Your task to perform on an android device: open app "YouTube Kids" Image 0: 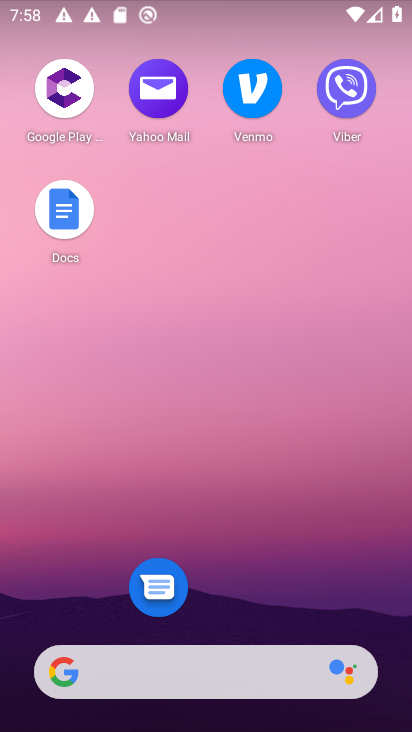
Step 0: drag from (260, 433) to (260, 164)
Your task to perform on an android device: open app "YouTube Kids" Image 1: 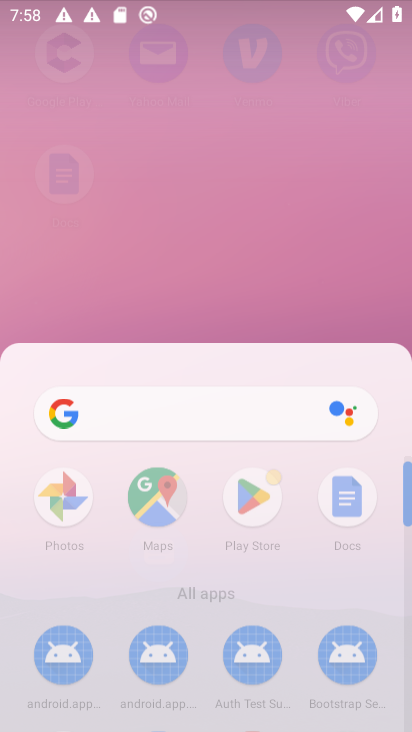
Step 1: drag from (265, 617) to (166, 94)
Your task to perform on an android device: open app "YouTube Kids" Image 2: 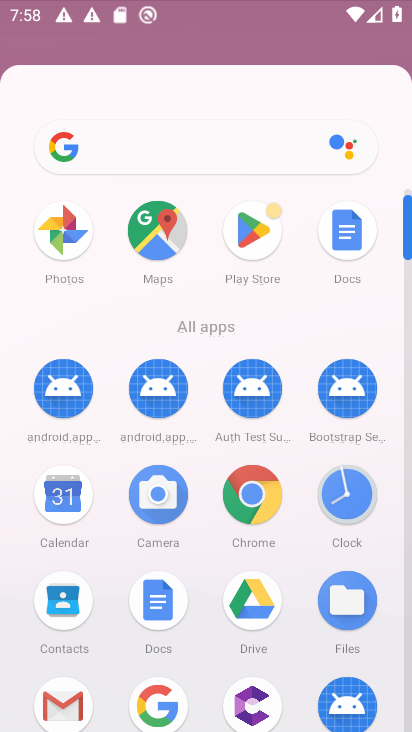
Step 2: drag from (230, 523) to (227, 156)
Your task to perform on an android device: open app "YouTube Kids" Image 3: 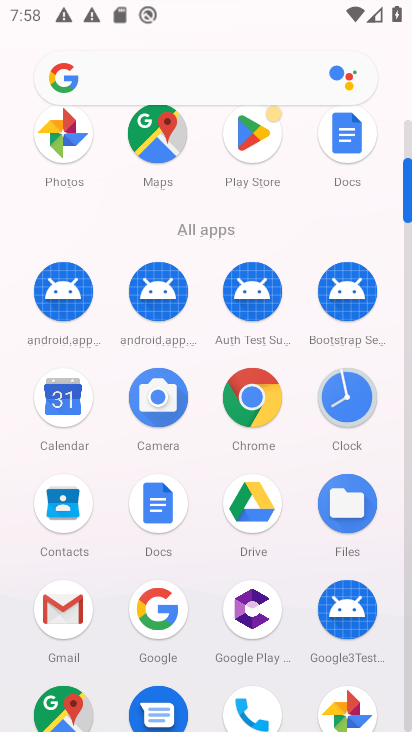
Step 3: click (254, 136)
Your task to perform on an android device: open app "YouTube Kids" Image 4: 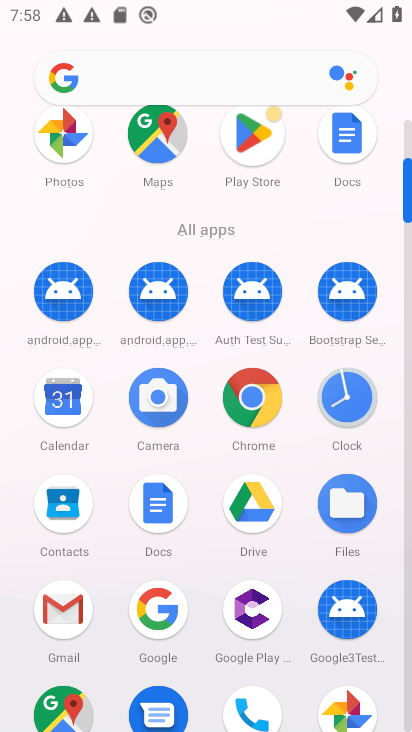
Step 4: click (252, 137)
Your task to perform on an android device: open app "YouTube Kids" Image 5: 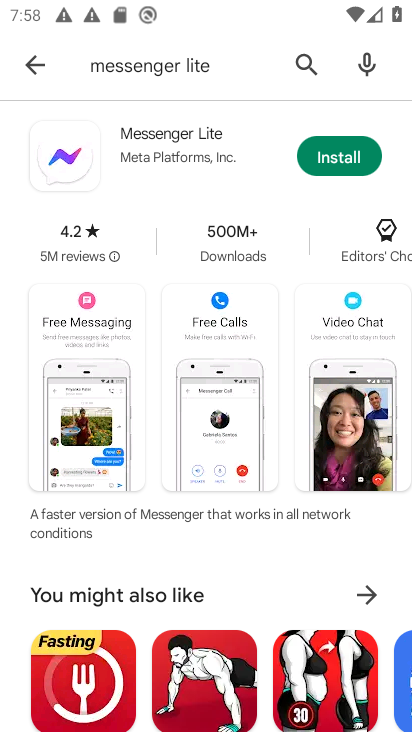
Step 5: click (29, 59)
Your task to perform on an android device: open app "YouTube Kids" Image 6: 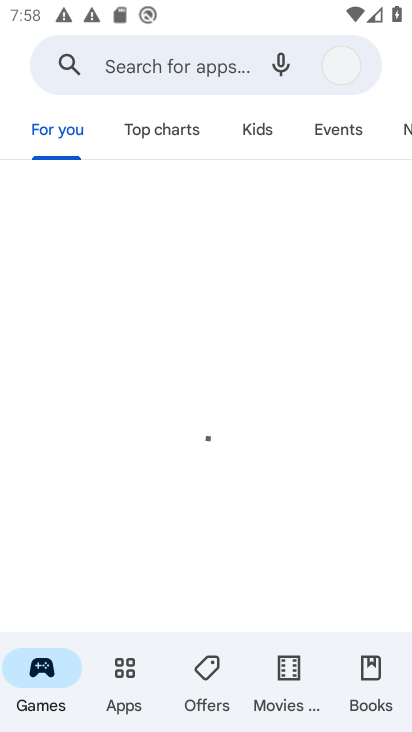
Step 6: click (41, 67)
Your task to perform on an android device: open app "YouTube Kids" Image 7: 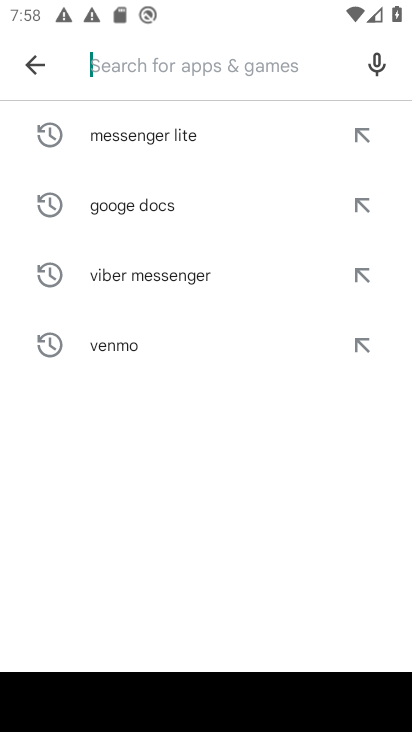
Step 7: click (148, 65)
Your task to perform on an android device: open app "YouTube Kids" Image 8: 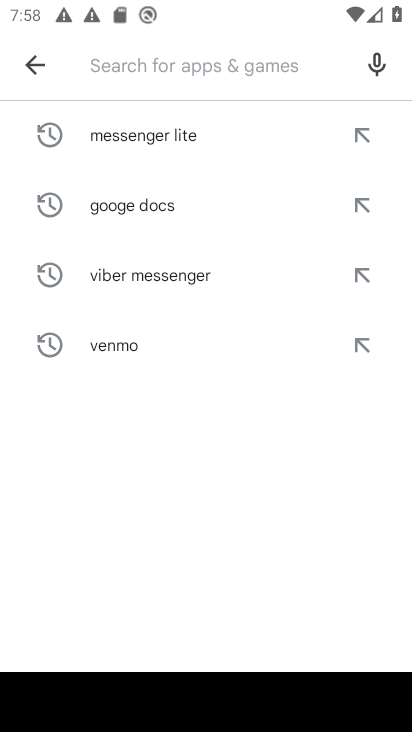
Step 8: type "youtube kids"
Your task to perform on an android device: open app "YouTube Kids" Image 9: 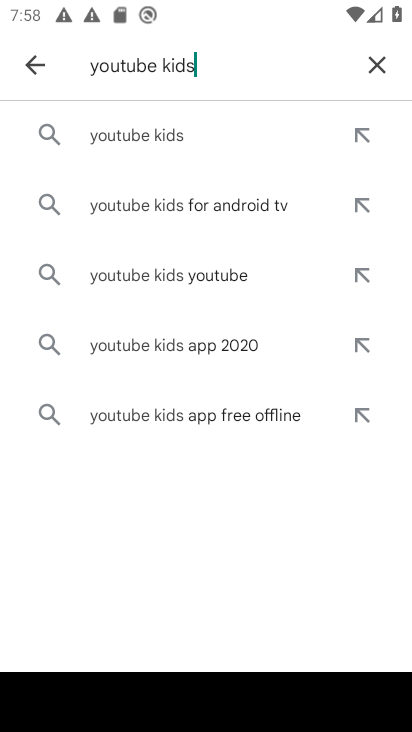
Step 9: click (118, 131)
Your task to perform on an android device: open app "YouTube Kids" Image 10: 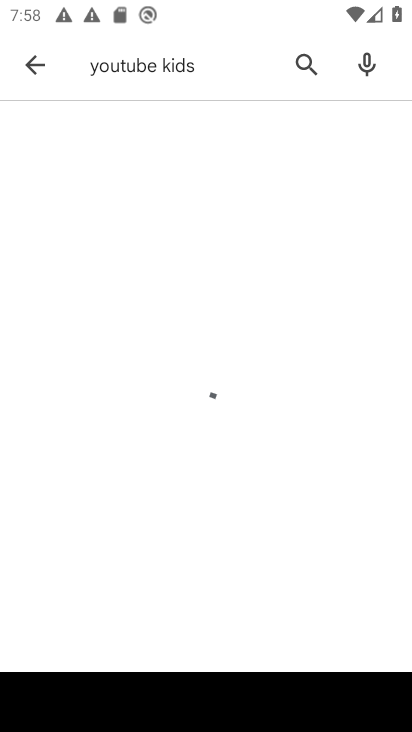
Step 10: click (124, 140)
Your task to perform on an android device: open app "YouTube Kids" Image 11: 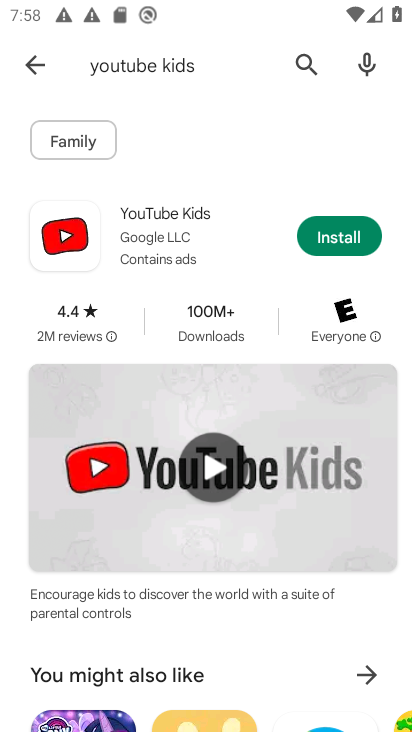
Step 11: click (343, 248)
Your task to perform on an android device: open app "YouTube Kids" Image 12: 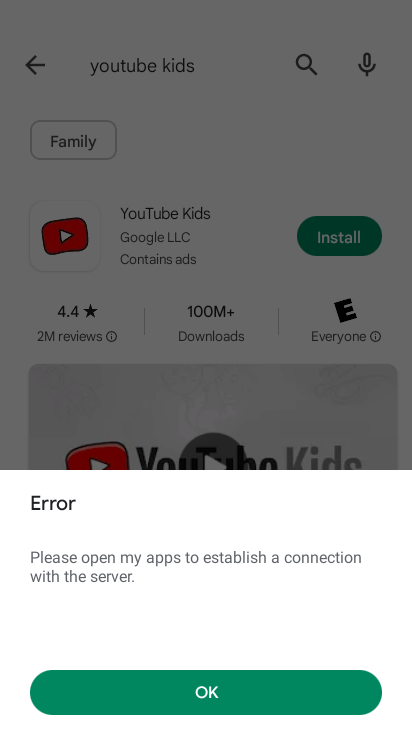
Step 12: task complete